Your task to perform on an android device: Add sony triple a to the cart on target.com, then select checkout. Image 0: 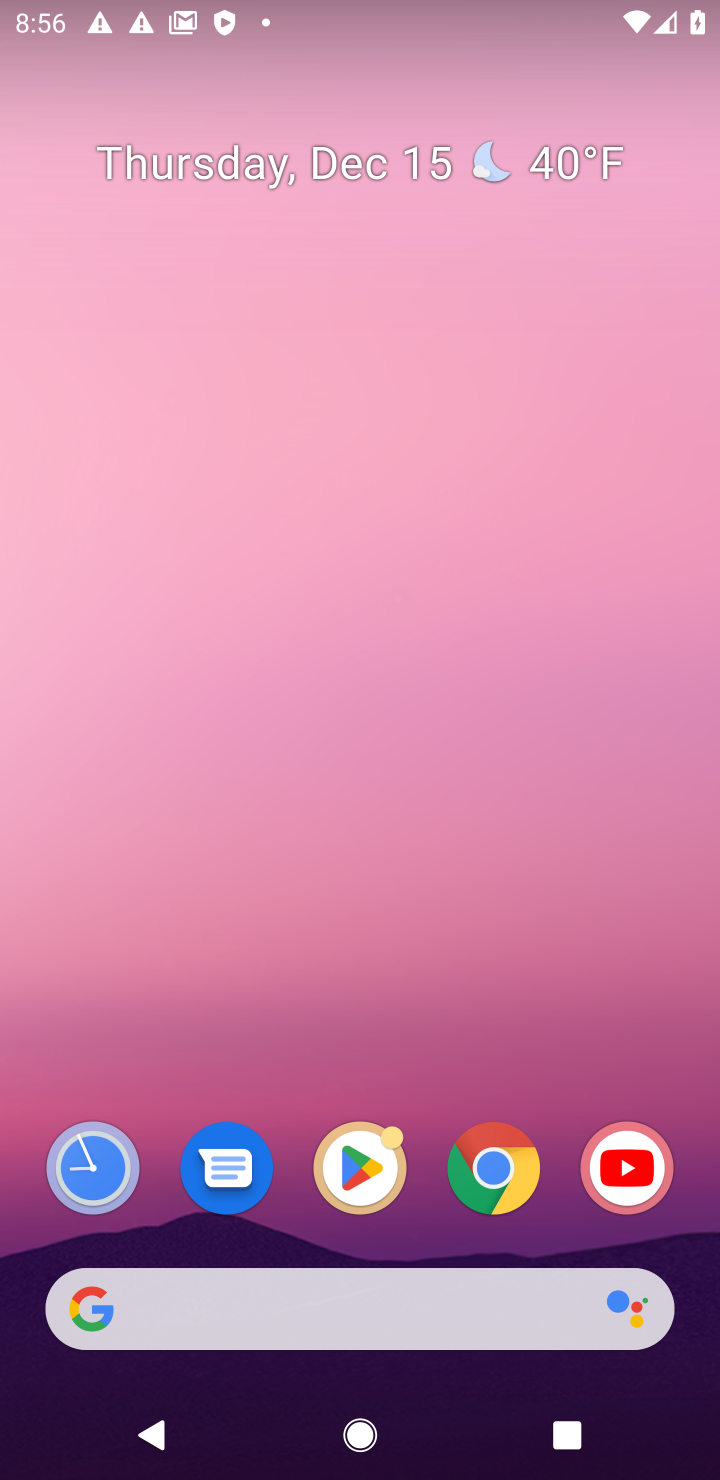
Step 0: click (487, 1179)
Your task to perform on an android device: Add sony triple a to the cart on target.com, then select checkout. Image 1: 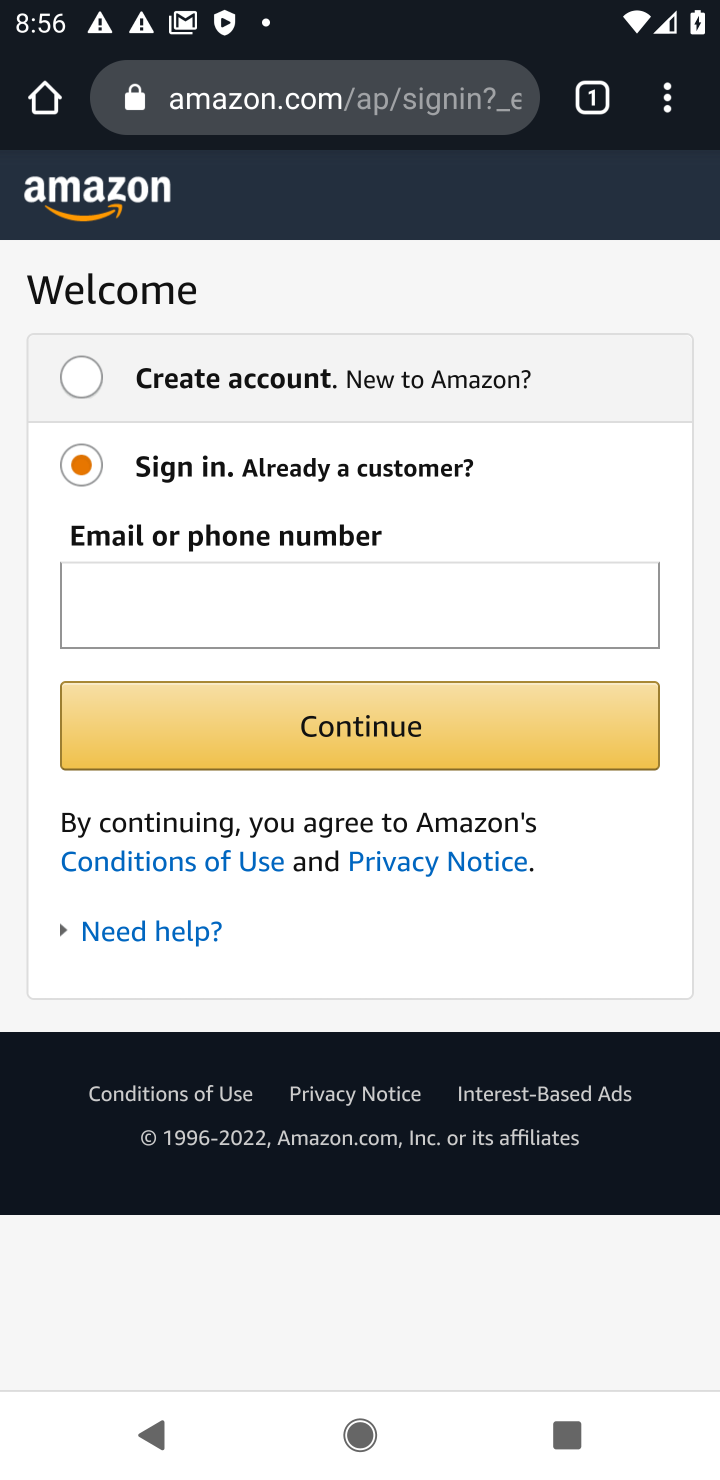
Step 1: click (258, 91)
Your task to perform on an android device: Add sony triple a to the cart on target.com, then select checkout. Image 2: 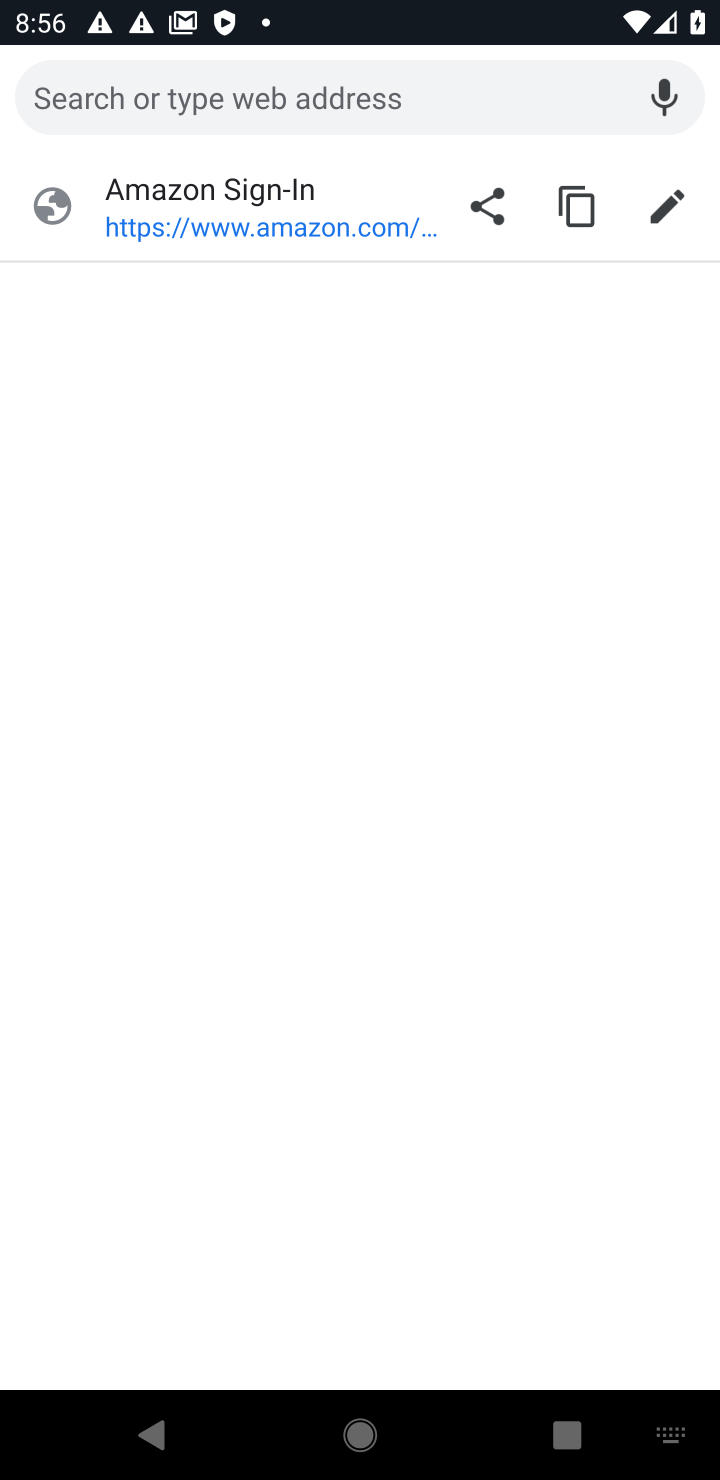
Step 2: type "TARGET"
Your task to perform on an android device: Add sony triple a to the cart on target.com, then select checkout. Image 3: 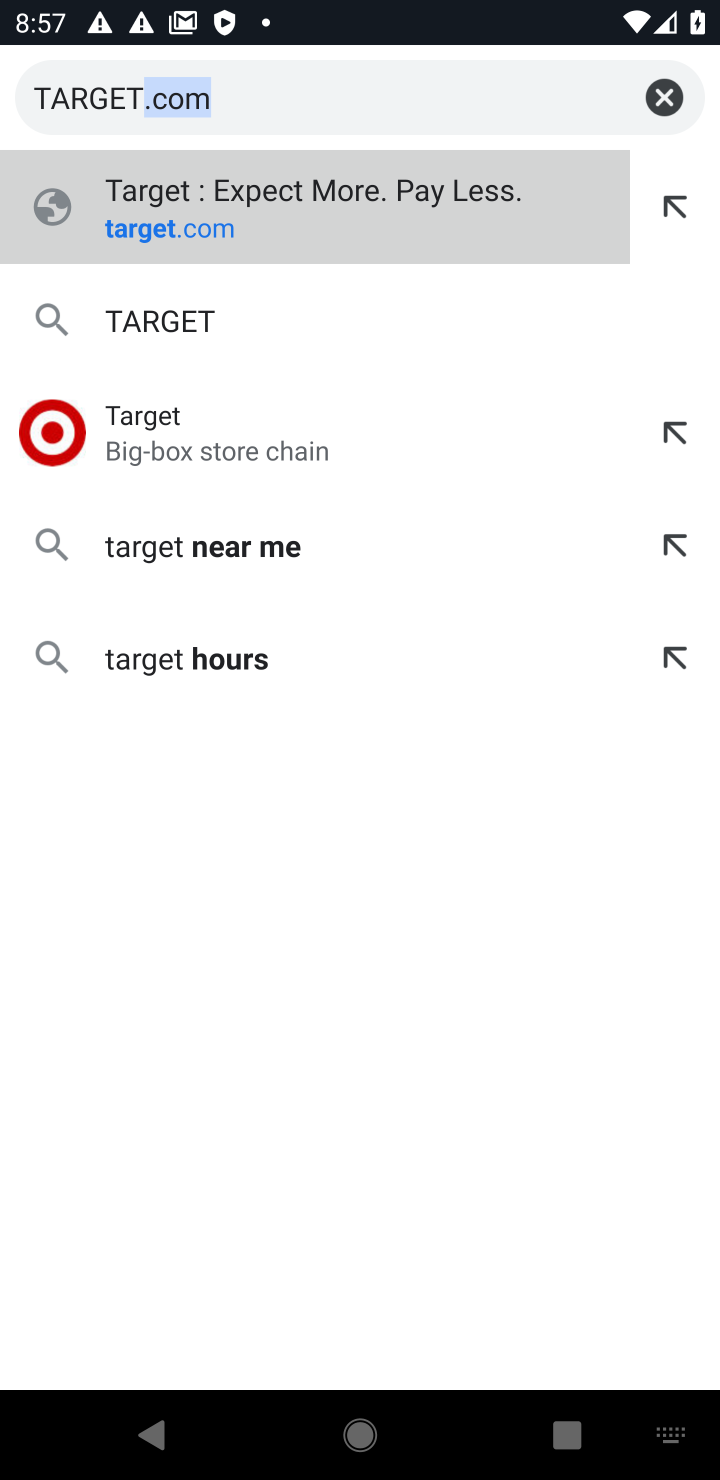
Step 3: click (186, 232)
Your task to perform on an android device: Add sony triple a to the cart on target.com, then select checkout. Image 4: 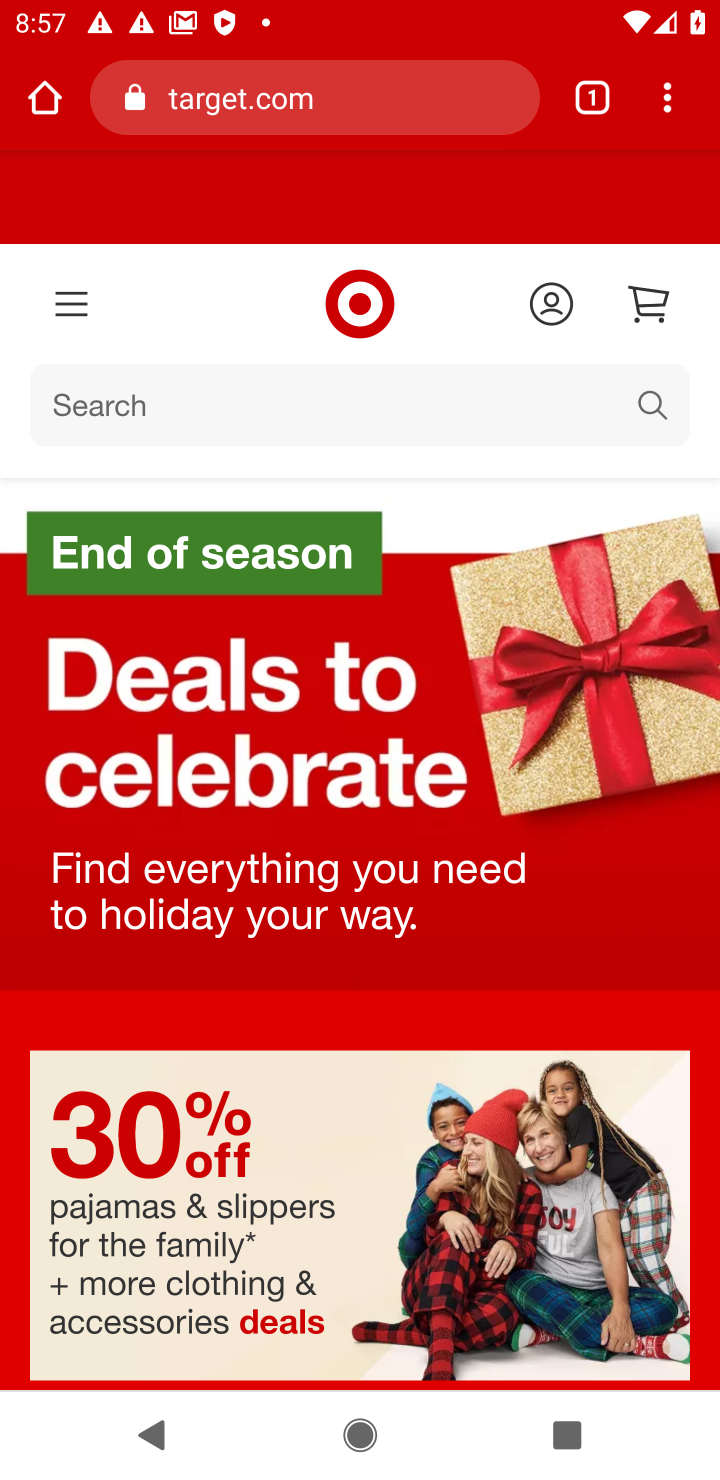
Step 4: click (415, 424)
Your task to perform on an android device: Add sony triple a to the cart on target.com, then select checkout. Image 5: 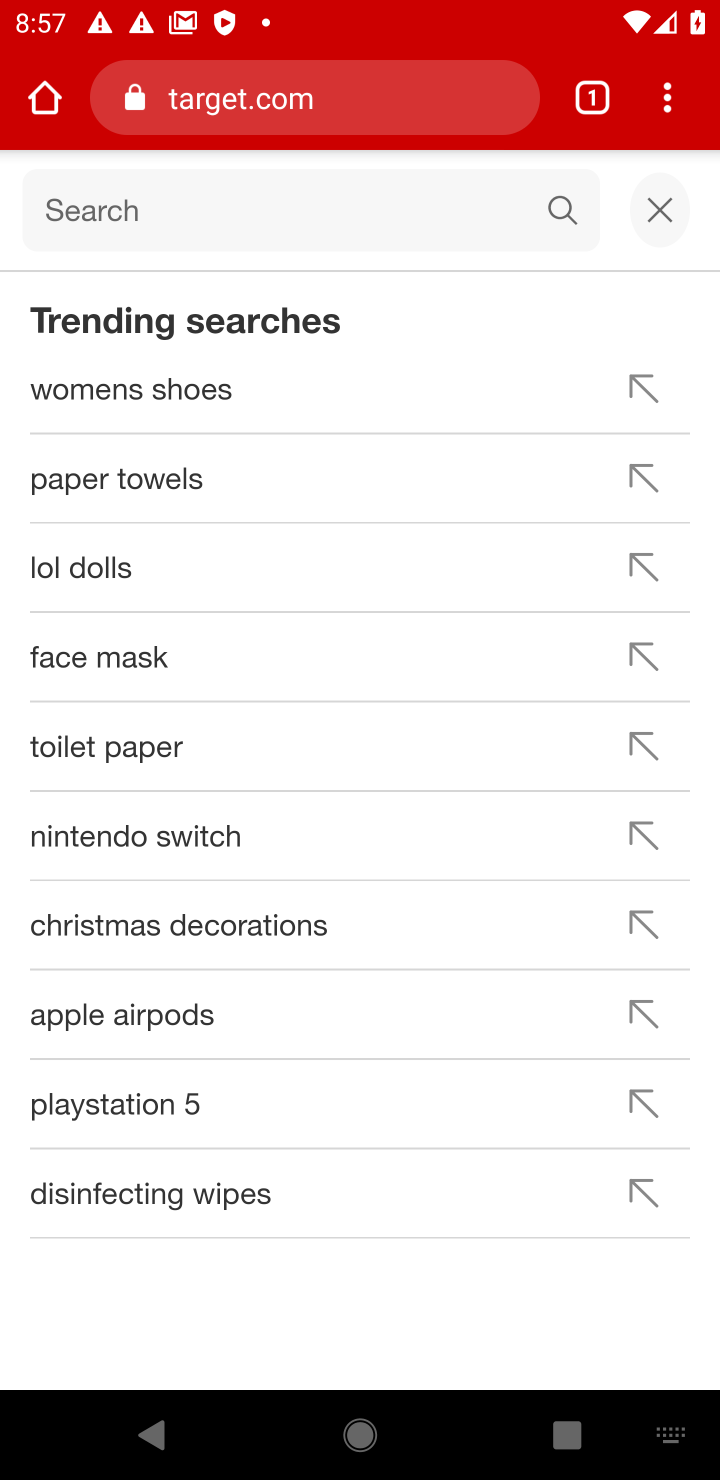
Step 5: type "sony triple a"
Your task to perform on an android device: Add sony triple a to the cart on target.com, then select checkout. Image 6: 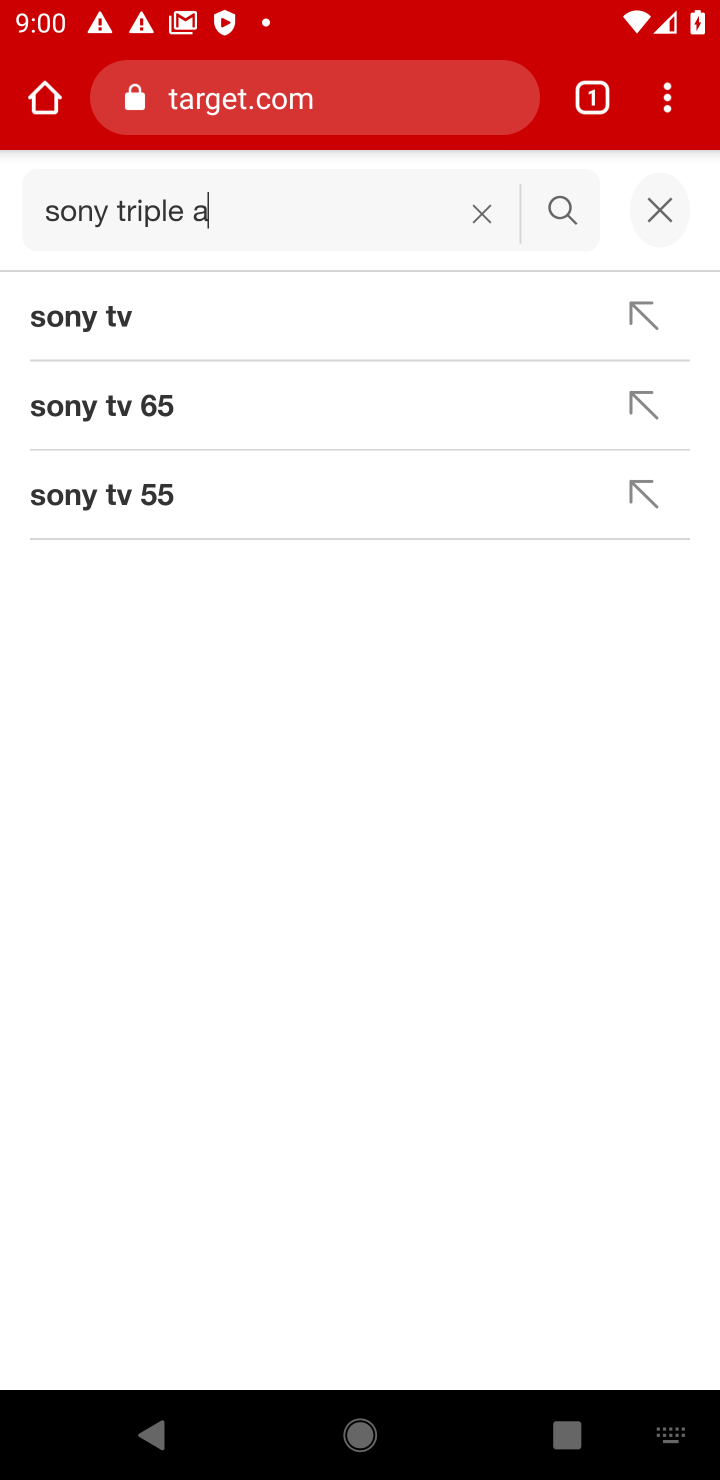
Step 6: click (555, 206)
Your task to perform on an android device: Add sony triple a to the cart on target.com, then select checkout. Image 7: 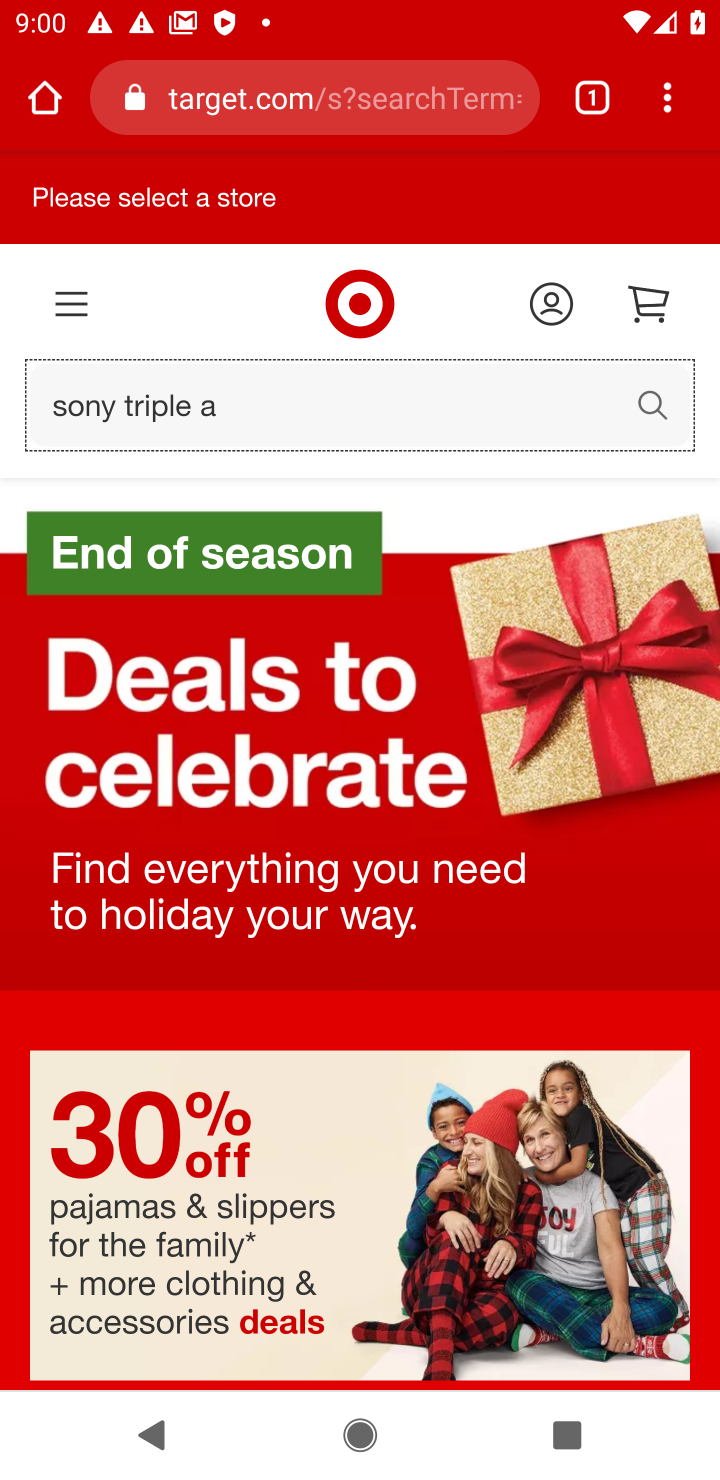
Step 7: click (169, 328)
Your task to perform on an android device: Add sony triple a to the cart on target.com, then select checkout. Image 8: 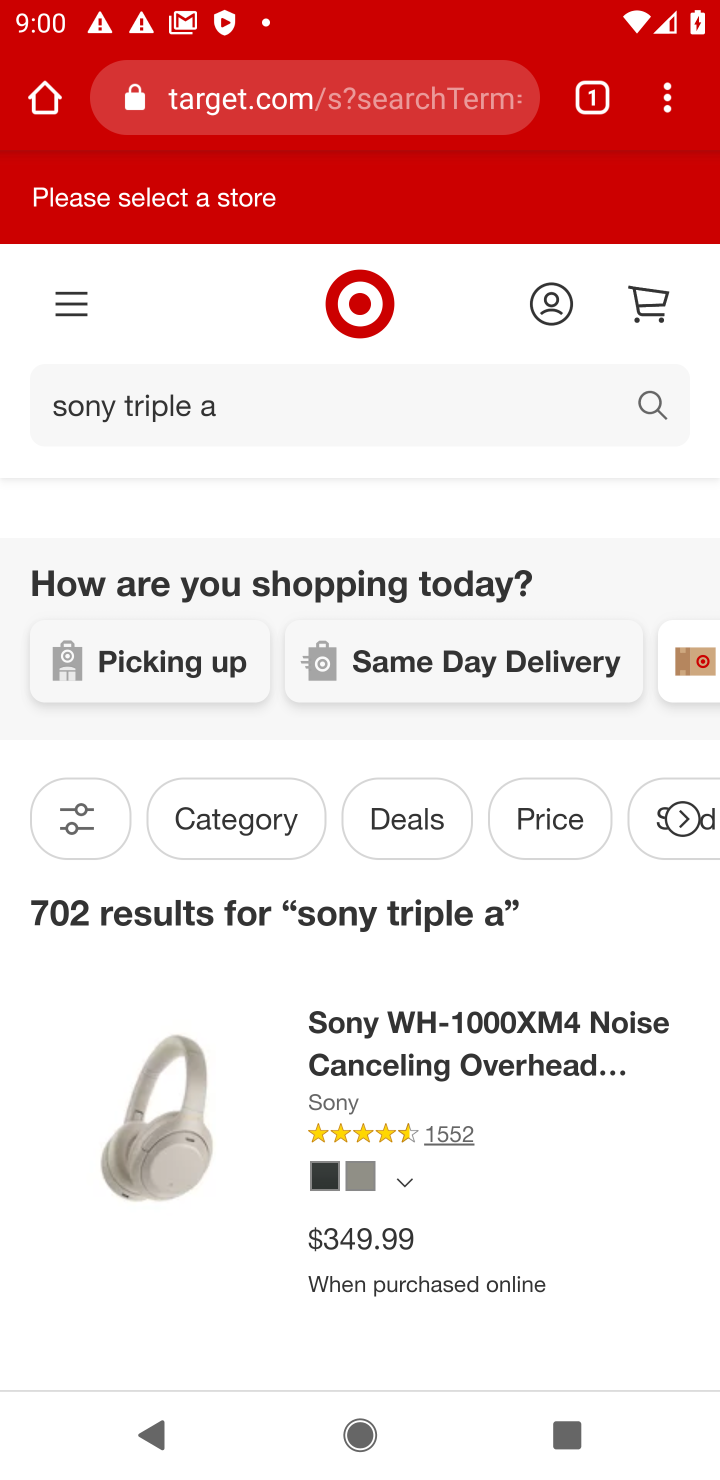
Step 8: drag from (558, 1152) to (501, 295)
Your task to perform on an android device: Add sony triple a to the cart on target.com, then select checkout. Image 9: 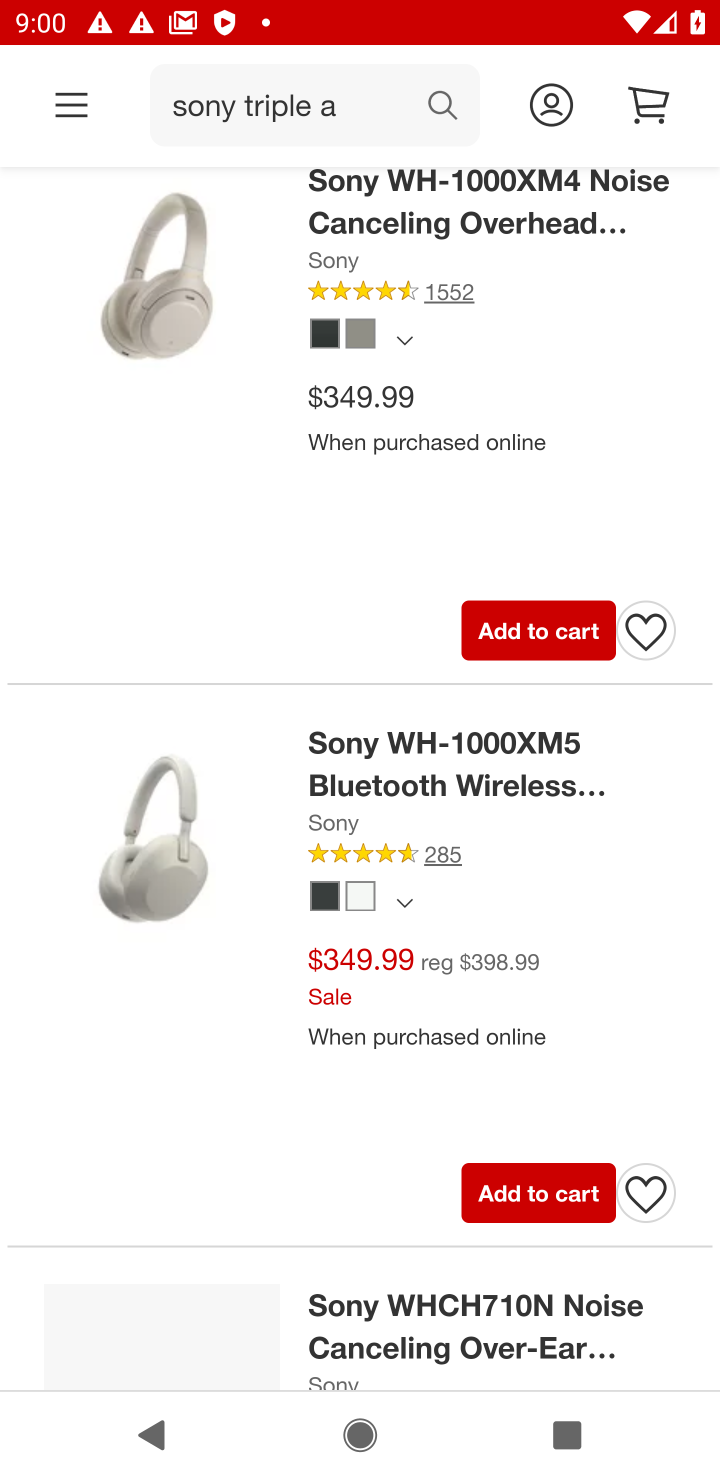
Step 9: click (548, 631)
Your task to perform on an android device: Add sony triple a to the cart on target.com, then select checkout. Image 10: 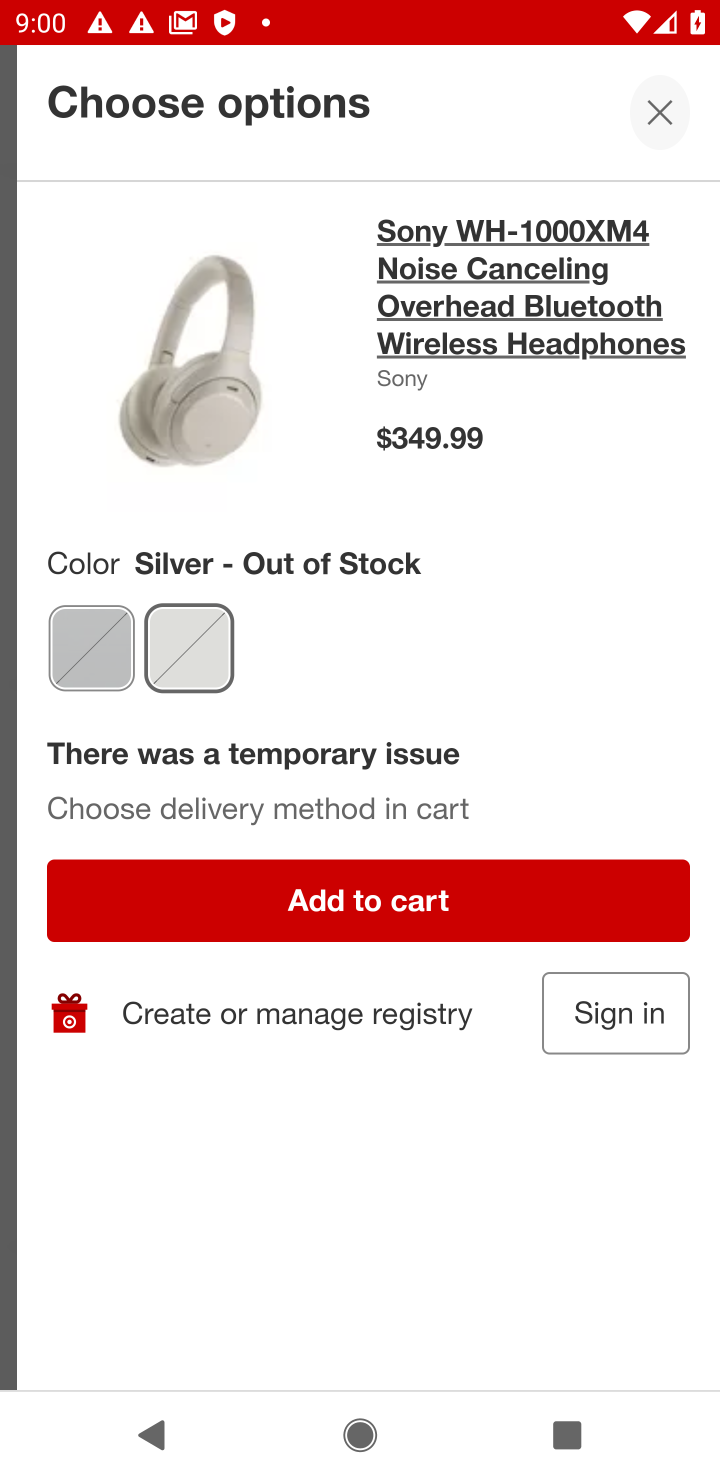
Step 10: click (357, 902)
Your task to perform on an android device: Add sony triple a to the cart on target.com, then select checkout. Image 11: 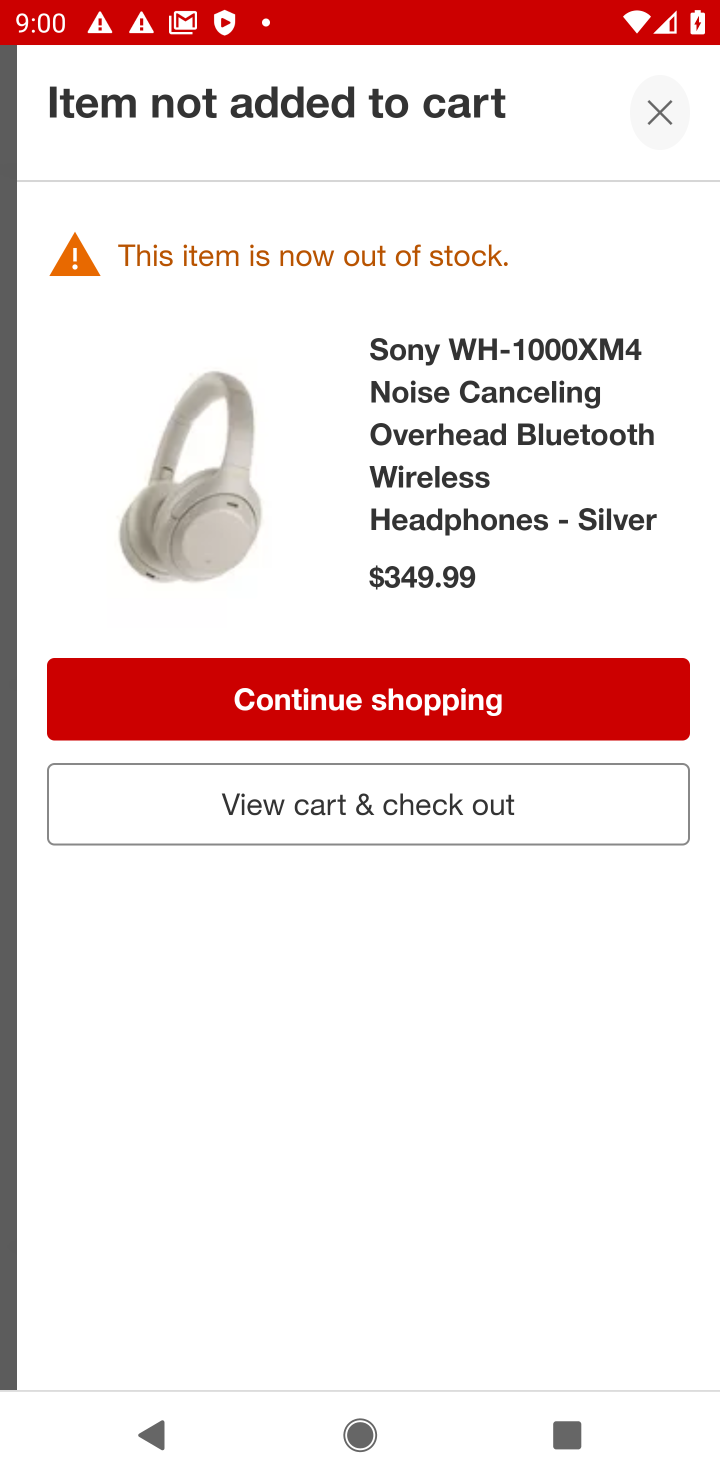
Step 11: click (406, 799)
Your task to perform on an android device: Add sony triple a to the cart on target.com, then select checkout. Image 12: 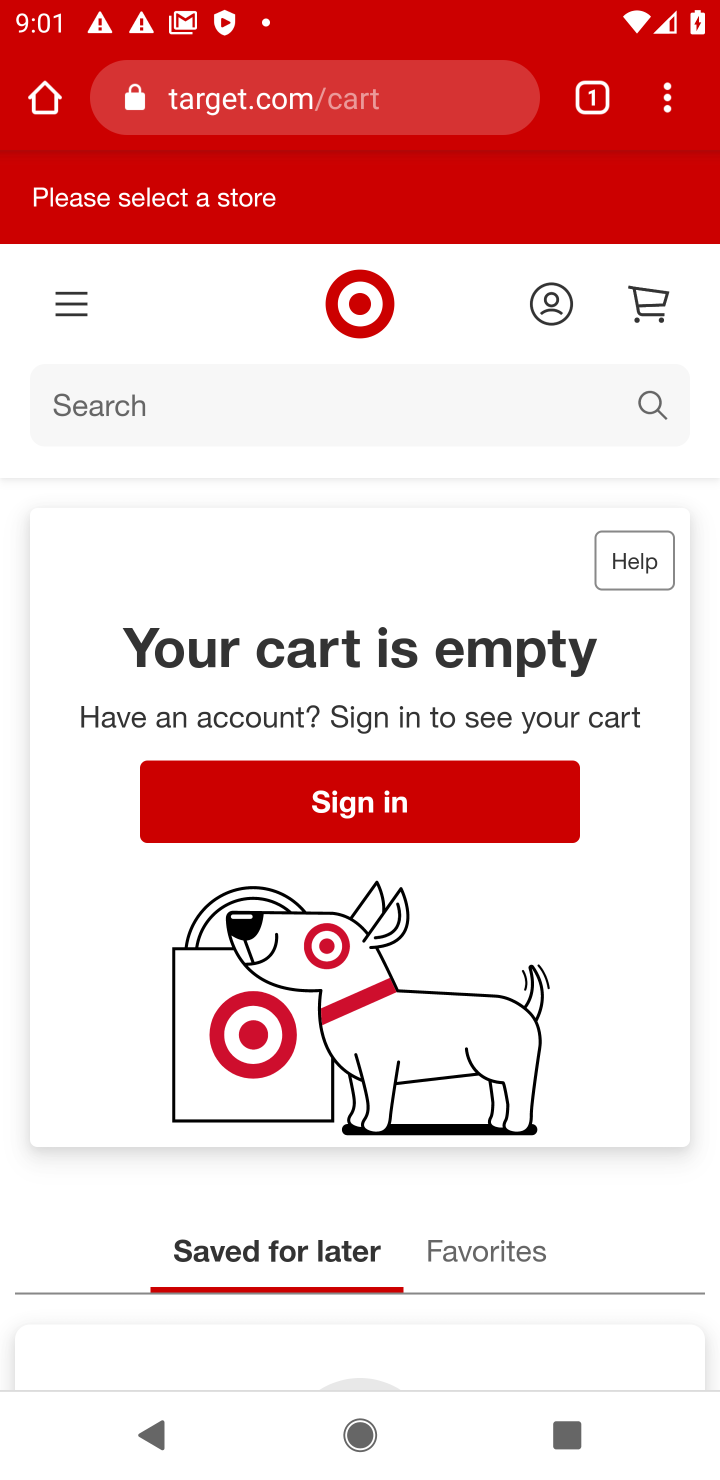
Step 12: task complete